Your task to perform on an android device: Open the stopwatch Image 0: 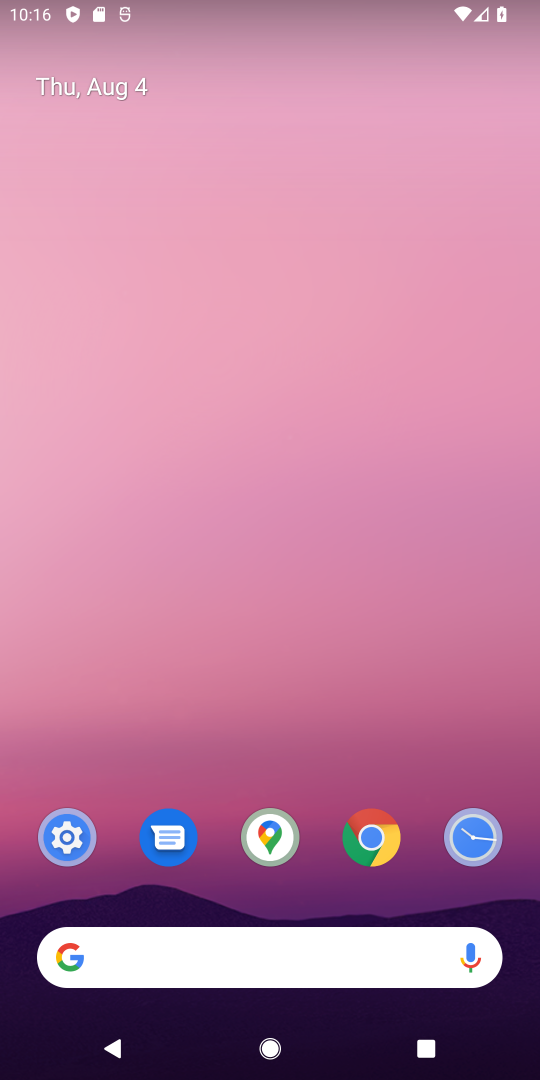
Step 0: drag from (320, 835) to (209, 3)
Your task to perform on an android device: Open the stopwatch Image 1: 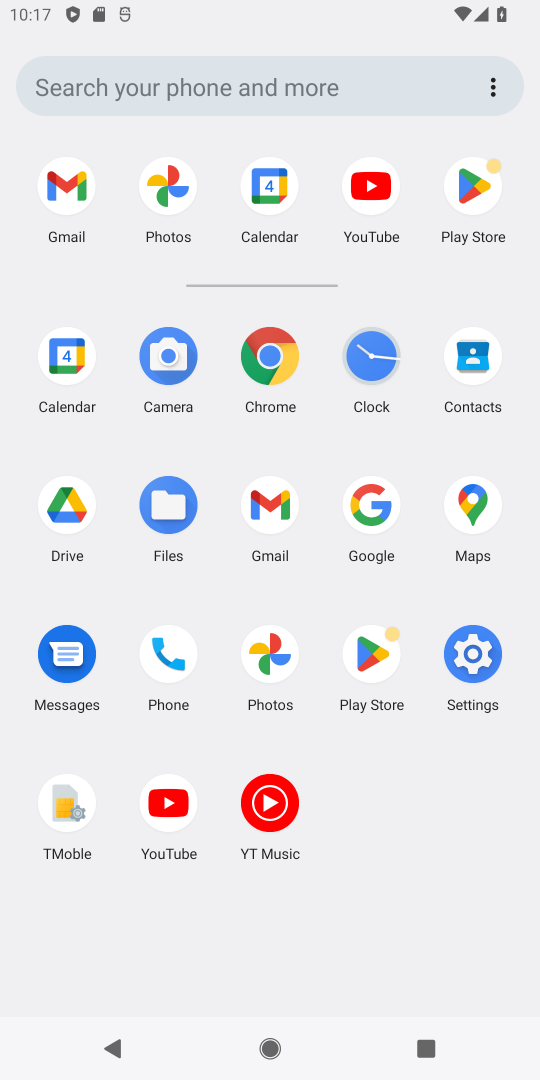
Step 1: click (380, 337)
Your task to perform on an android device: Open the stopwatch Image 2: 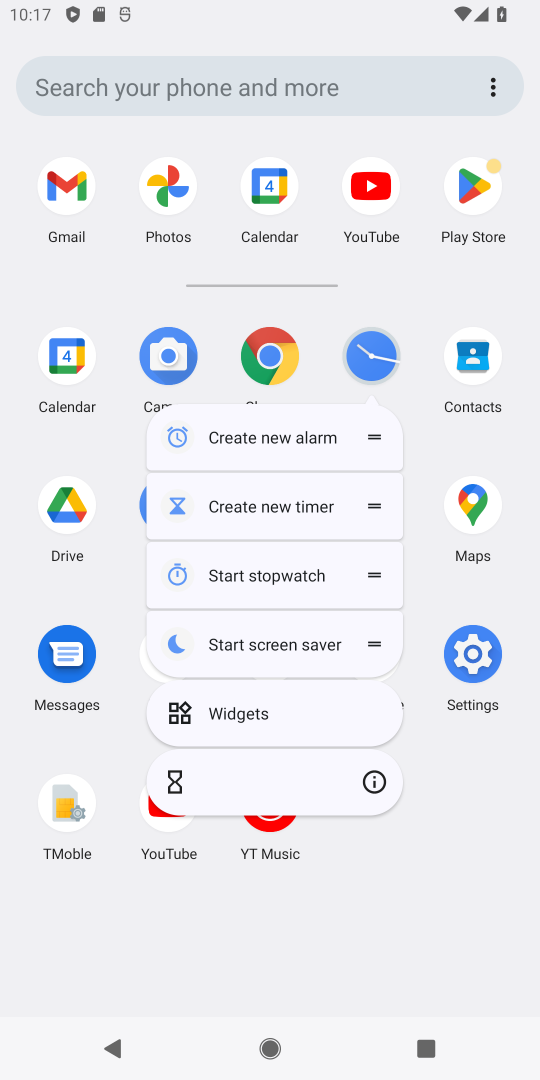
Step 2: click (369, 345)
Your task to perform on an android device: Open the stopwatch Image 3: 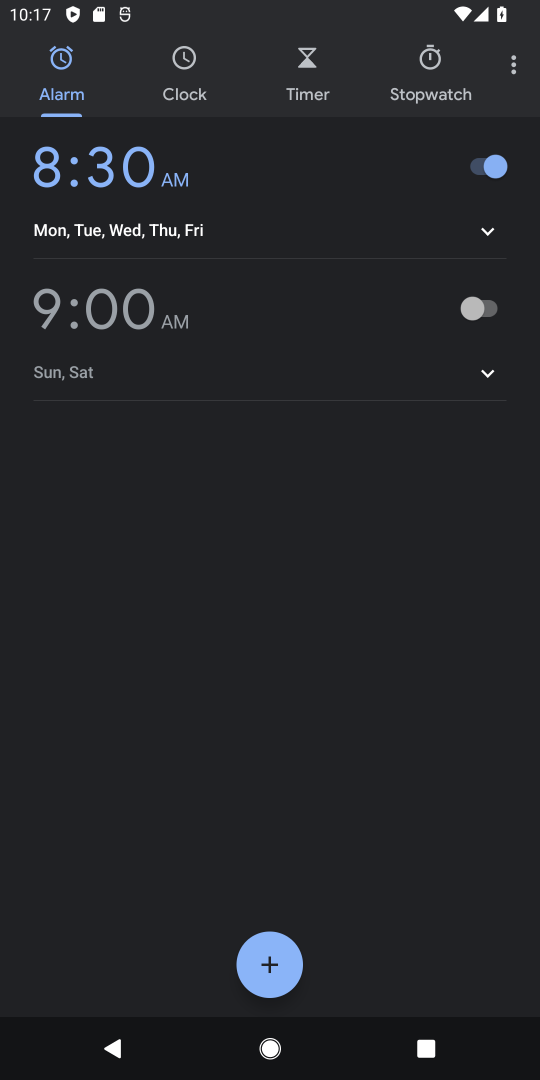
Step 3: click (423, 70)
Your task to perform on an android device: Open the stopwatch Image 4: 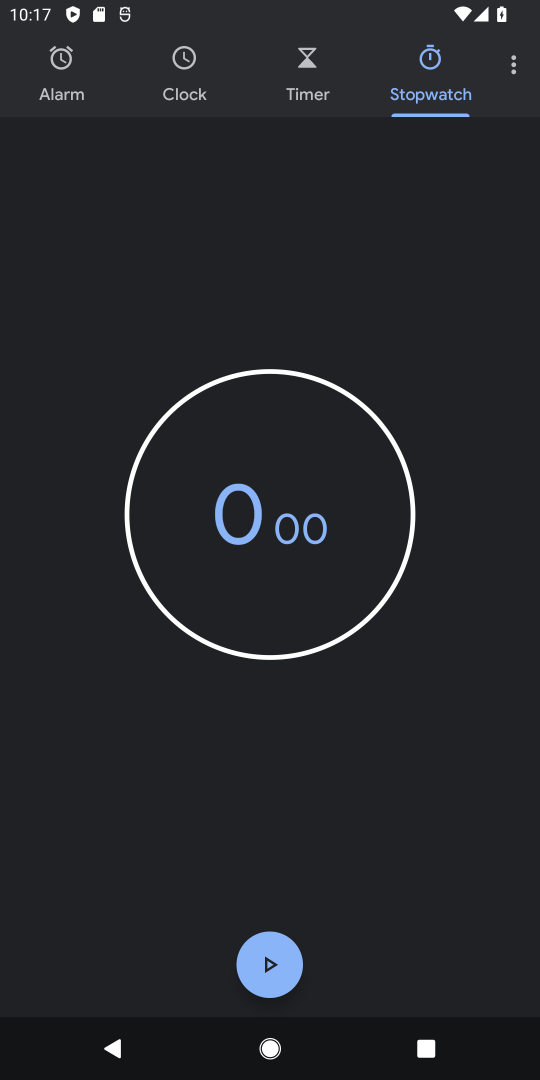
Step 4: task complete